Your task to perform on an android device: see tabs open on other devices in the chrome app Image 0: 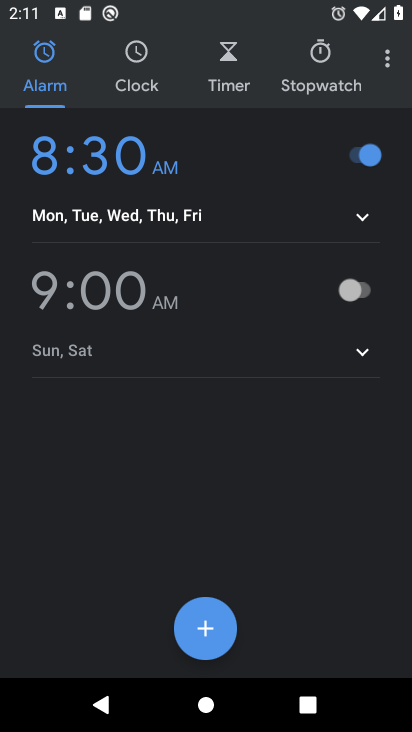
Step 0: press home button
Your task to perform on an android device: see tabs open on other devices in the chrome app Image 1: 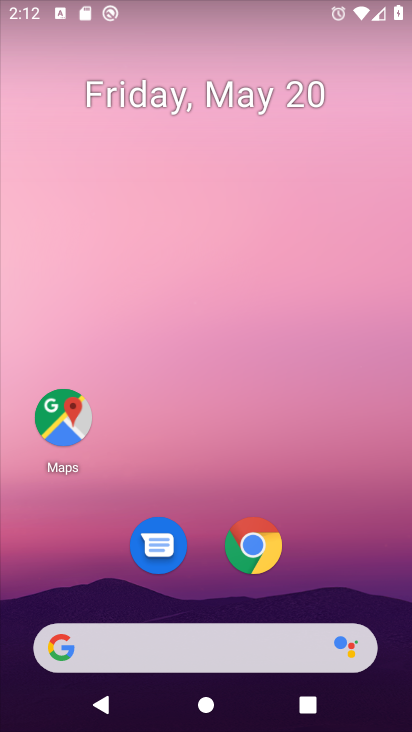
Step 1: drag from (180, 619) to (197, 9)
Your task to perform on an android device: see tabs open on other devices in the chrome app Image 2: 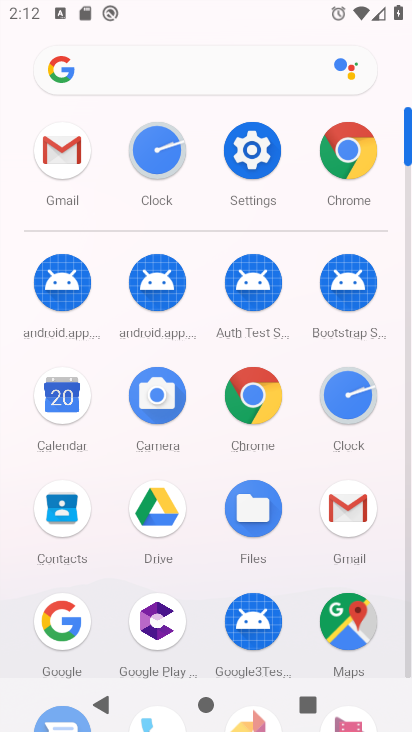
Step 2: click (248, 384)
Your task to perform on an android device: see tabs open on other devices in the chrome app Image 3: 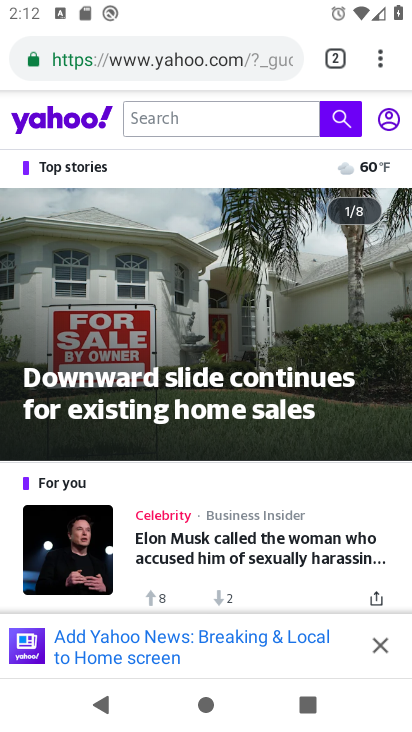
Step 3: task complete